Your task to perform on an android device: Empty the shopping cart on ebay.com. Add lenovo thinkpad to the cart on ebay.com, then select checkout. Image 0: 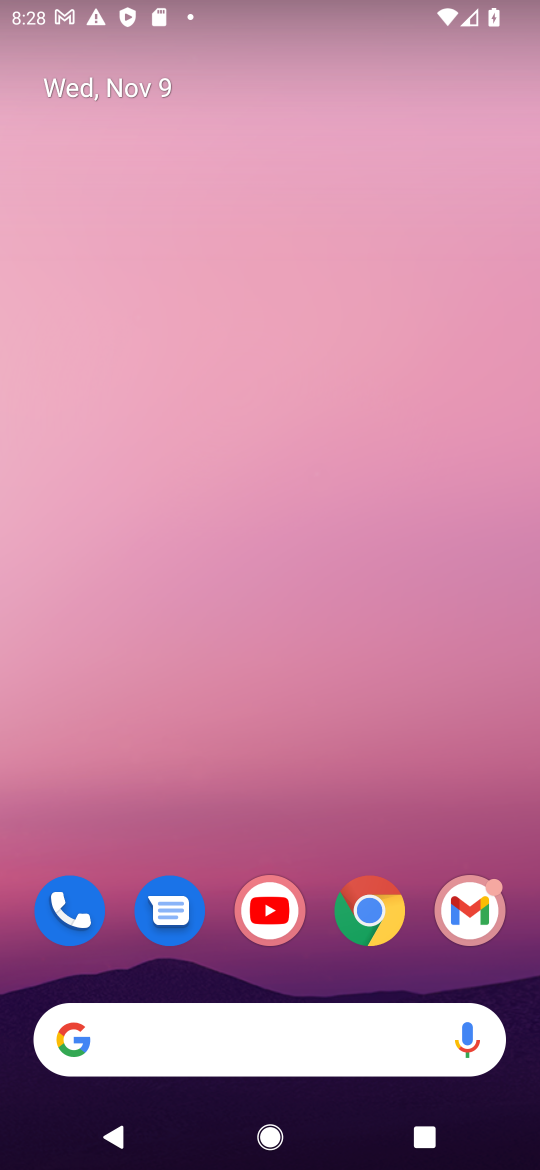
Step 0: click (378, 919)
Your task to perform on an android device: Empty the shopping cart on ebay.com. Add lenovo thinkpad to the cart on ebay.com, then select checkout. Image 1: 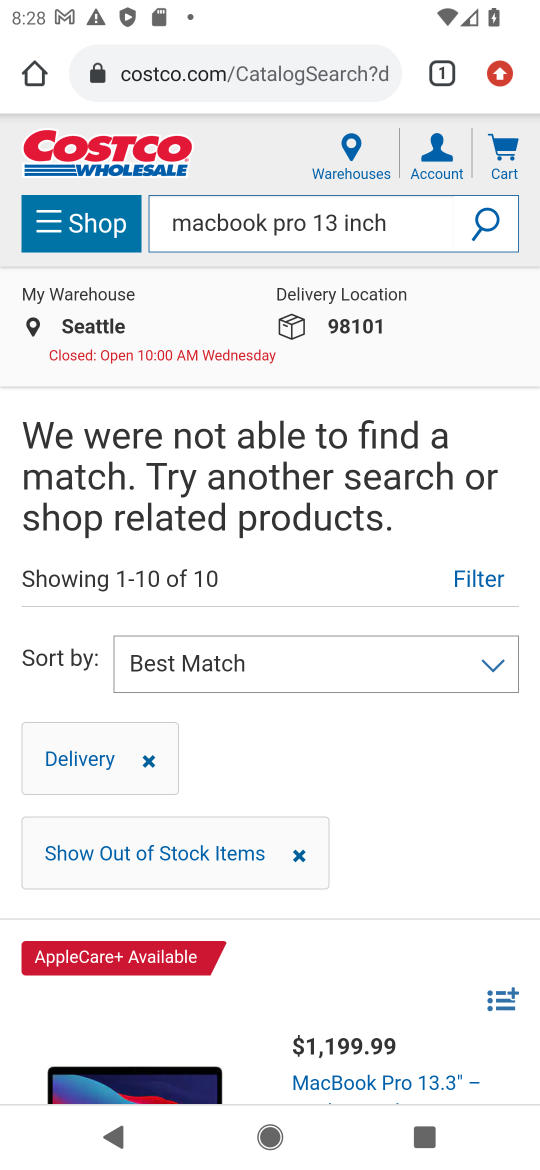
Step 1: click (256, 84)
Your task to perform on an android device: Empty the shopping cart on ebay.com. Add lenovo thinkpad to the cart on ebay.com, then select checkout. Image 2: 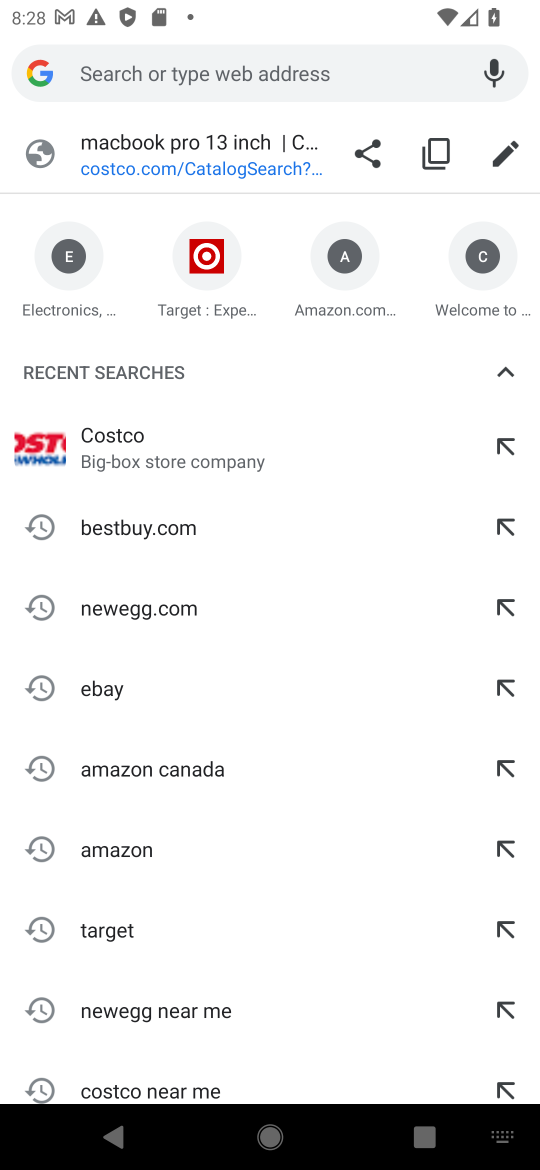
Step 2: click (108, 689)
Your task to perform on an android device: Empty the shopping cart on ebay.com. Add lenovo thinkpad to the cart on ebay.com, then select checkout. Image 3: 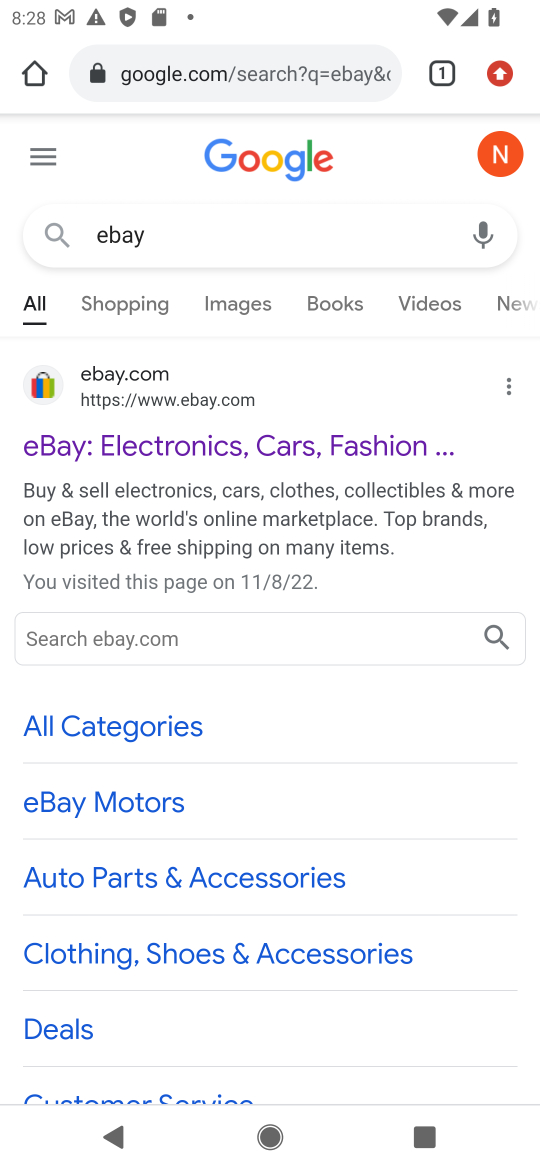
Step 3: click (92, 434)
Your task to perform on an android device: Empty the shopping cart on ebay.com. Add lenovo thinkpad to the cart on ebay.com, then select checkout. Image 4: 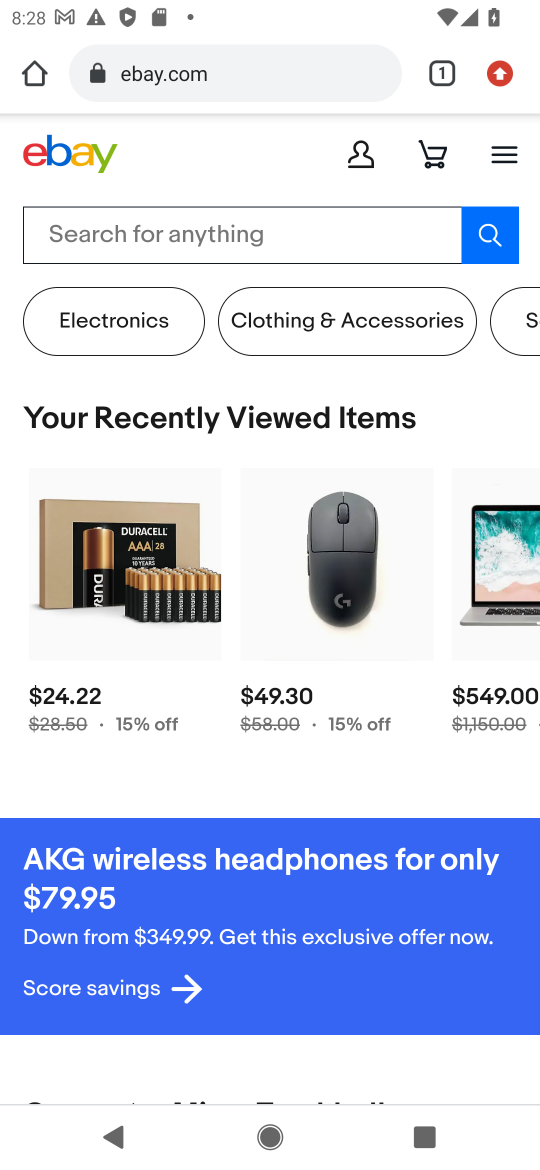
Step 4: click (427, 162)
Your task to perform on an android device: Empty the shopping cart on ebay.com. Add lenovo thinkpad to the cart on ebay.com, then select checkout. Image 5: 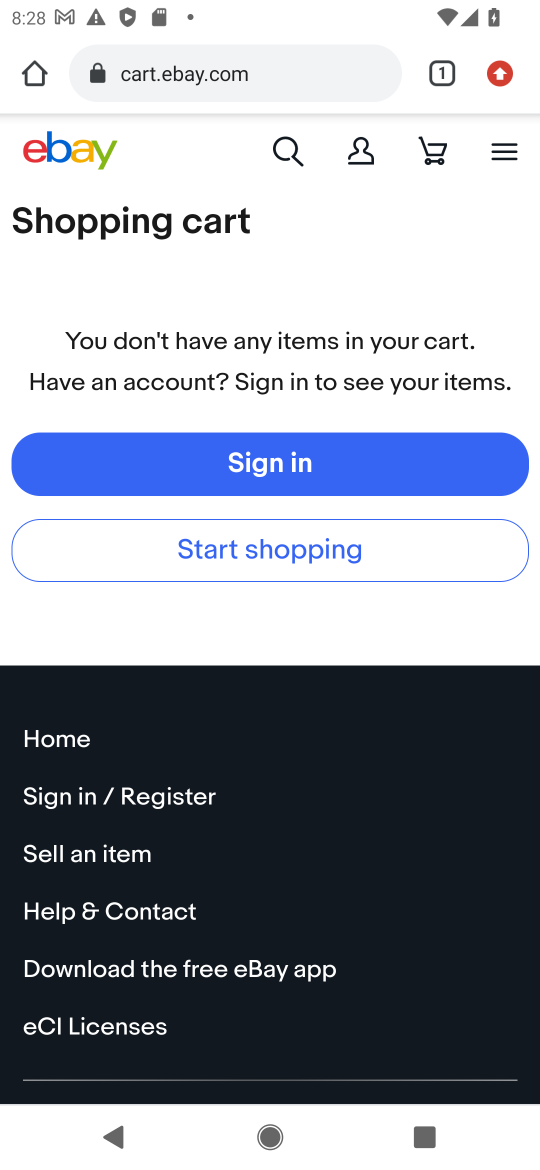
Step 5: click (279, 154)
Your task to perform on an android device: Empty the shopping cart on ebay.com. Add lenovo thinkpad to the cart on ebay.com, then select checkout. Image 6: 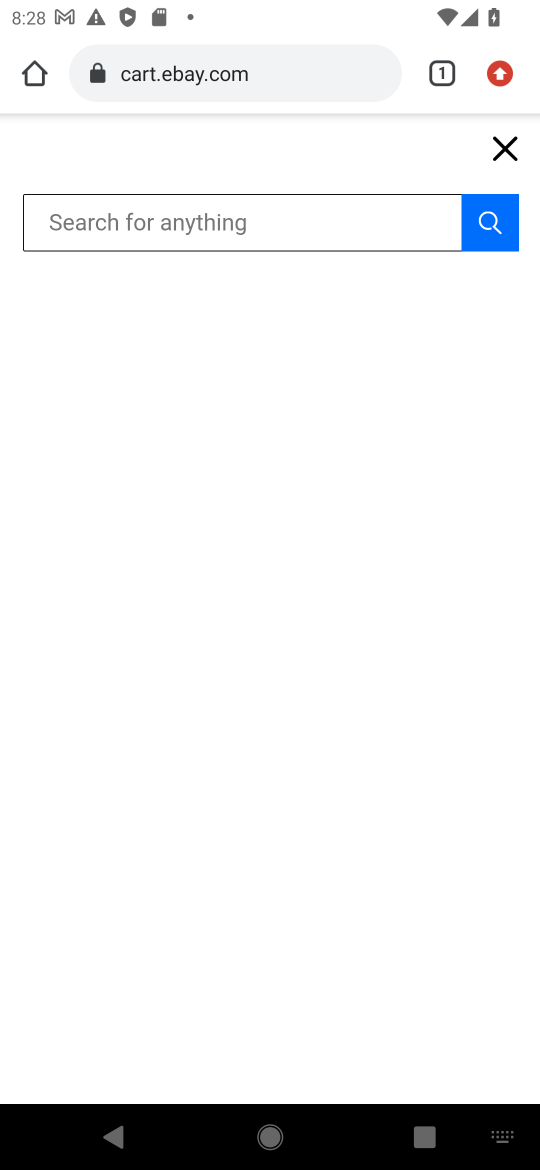
Step 6: type "lenovo thinkpad"
Your task to perform on an android device: Empty the shopping cart on ebay.com. Add lenovo thinkpad to the cart on ebay.com, then select checkout. Image 7: 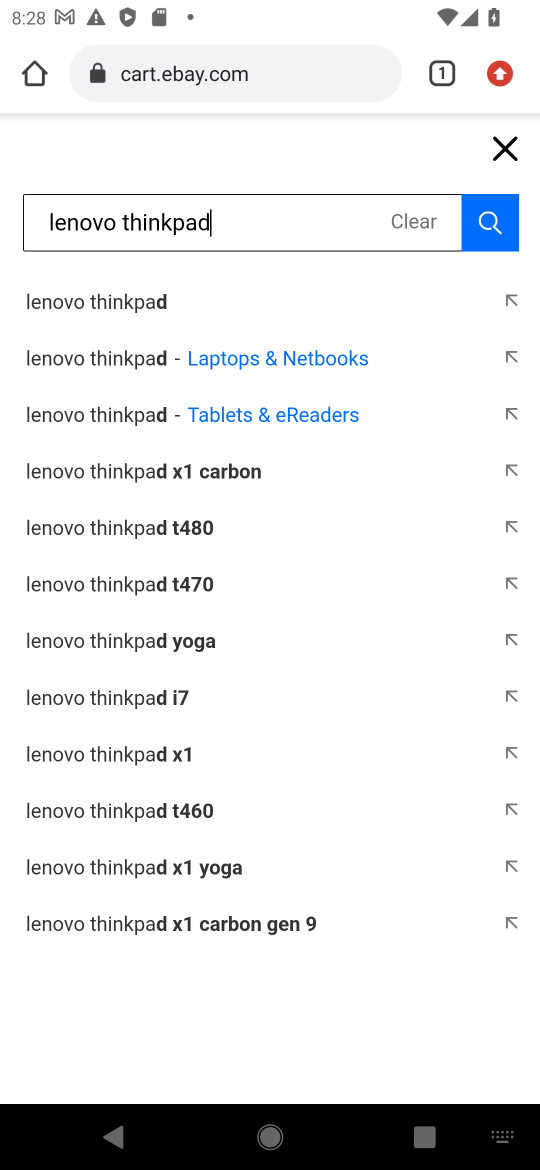
Step 7: click (111, 308)
Your task to perform on an android device: Empty the shopping cart on ebay.com. Add lenovo thinkpad to the cart on ebay.com, then select checkout. Image 8: 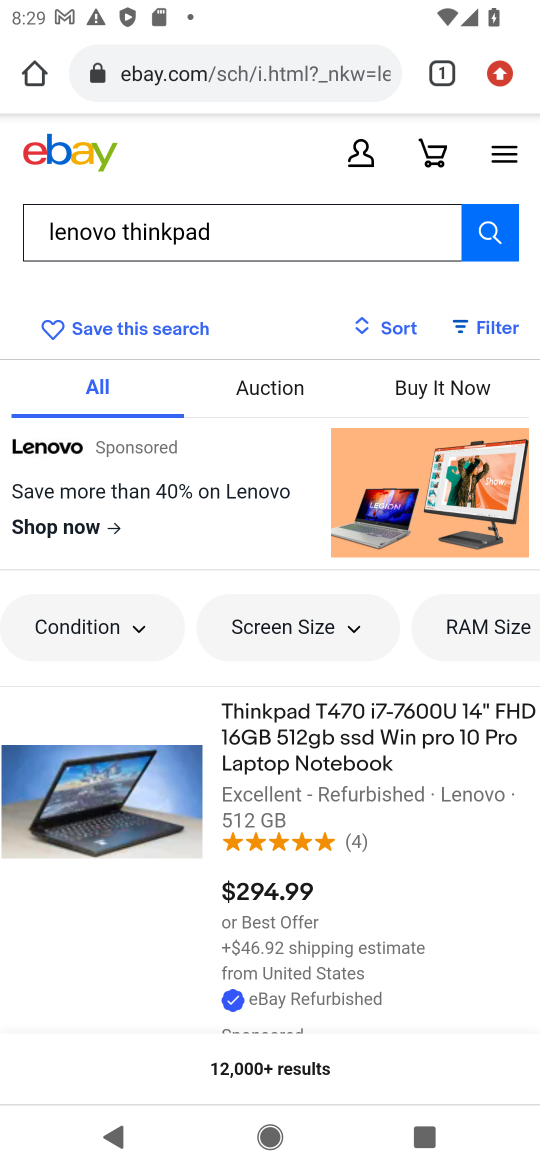
Step 8: drag from (178, 786) to (185, 404)
Your task to perform on an android device: Empty the shopping cart on ebay.com. Add lenovo thinkpad to the cart on ebay.com, then select checkout. Image 9: 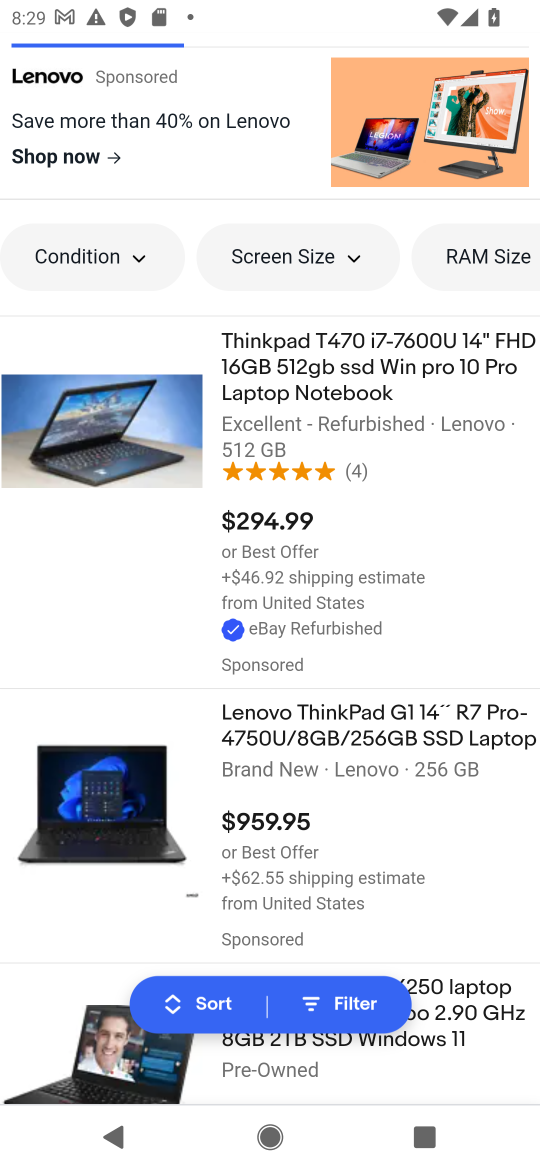
Step 9: drag from (192, 779) to (208, 480)
Your task to perform on an android device: Empty the shopping cart on ebay.com. Add lenovo thinkpad to the cart on ebay.com, then select checkout. Image 10: 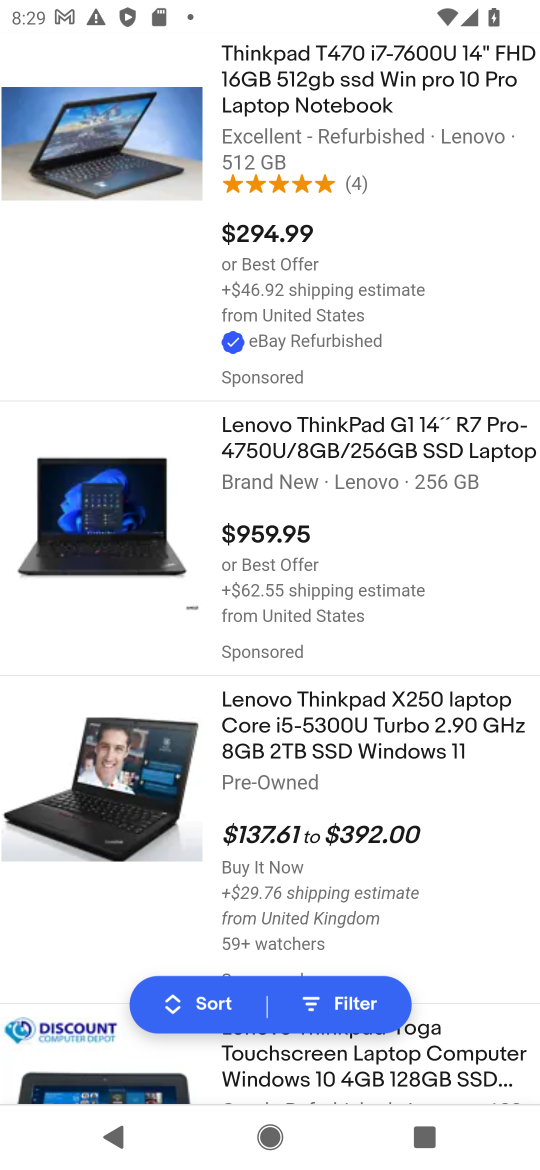
Step 10: click (148, 541)
Your task to perform on an android device: Empty the shopping cart on ebay.com. Add lenovo thinkpad to the cart on ebay.com, then select checkout. Image 11: 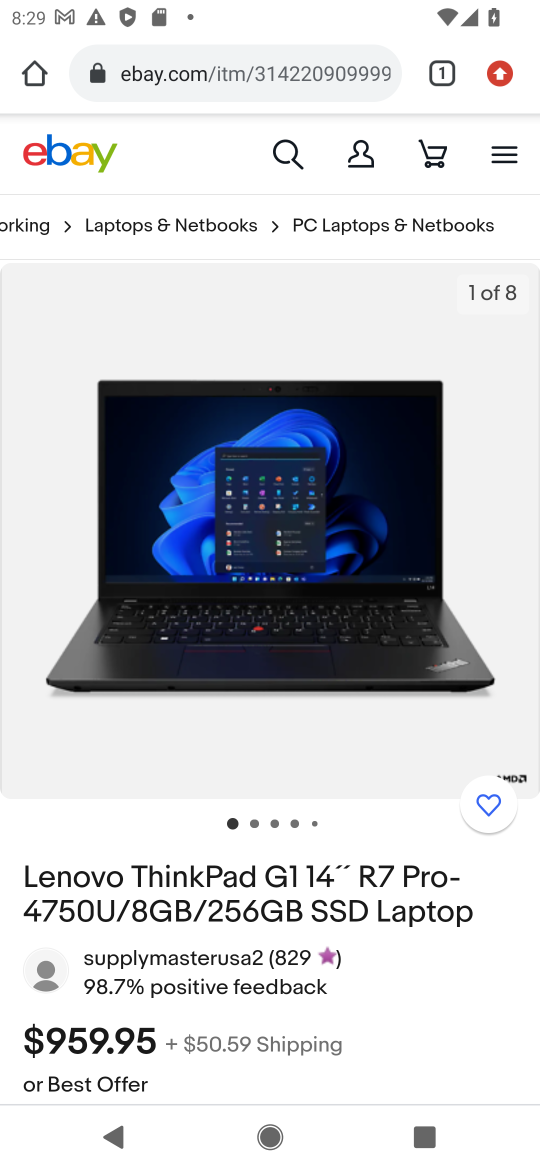
Step 11: drag from (167, 827) to (148, 323)
Your task to perform on an android device: Empty the shopping cart on ebay.com. Add lenovo thinkpad to the cart on ebay.com, then select checkout. Image 12: 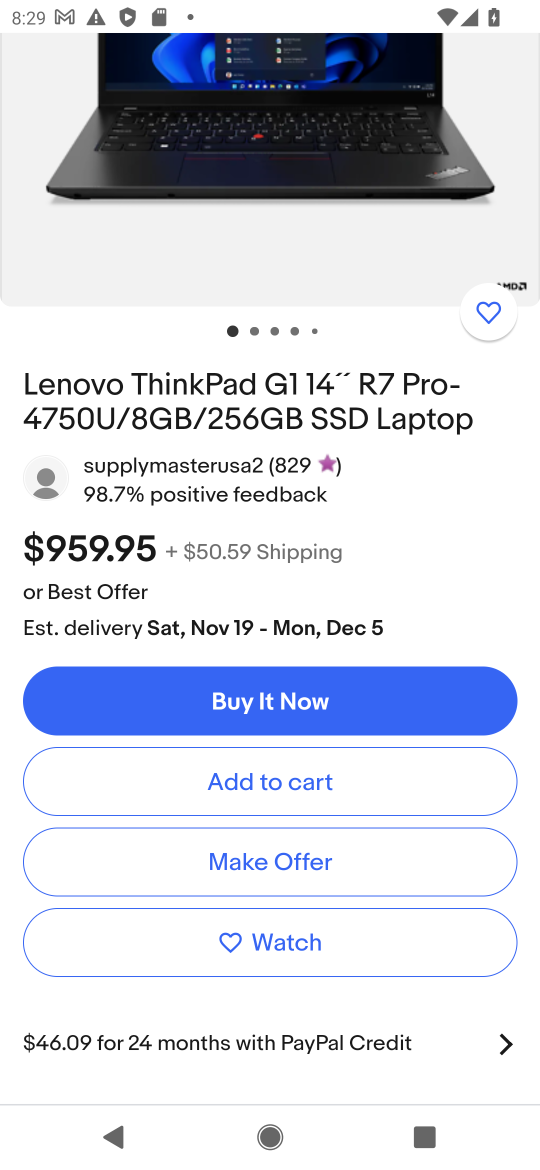
Step 12: click (225, 781)
Your task to perform on an android device: Empty the shopping cart on ebay.com. Add lenovo thinkpad to the cart on ebay.com, then select checkout. Image 13: 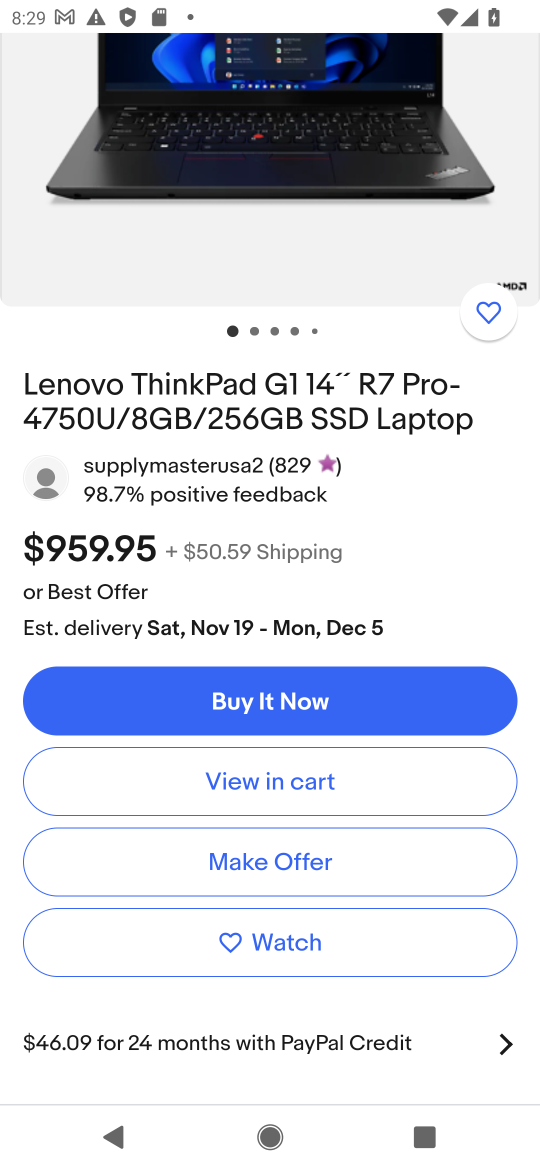
Step 13: click (225, 793)
Your task to perform on an android device: Empty the shopping cart on ebay.com. Add lenovo thinkpad to the cart on ebay.com, then select checkout. Image 14: 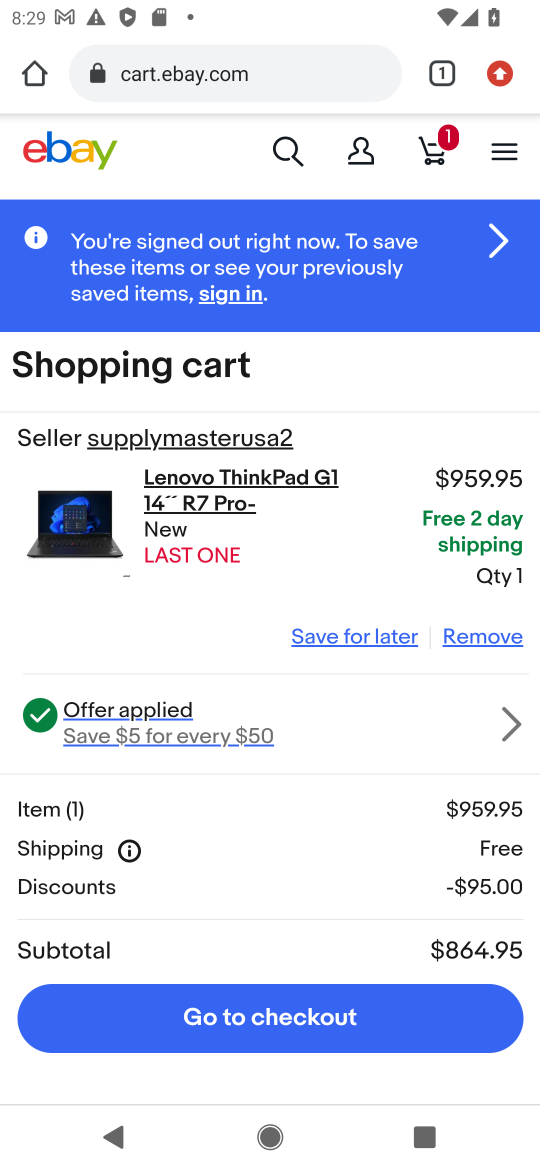
Step 14: click (293, 1026)
Your task to perform on an android device: Empty the shopping cart on ebay.com. Add lenovo thinkpad to the cart on ebay.com, then select checkout. Image 15: 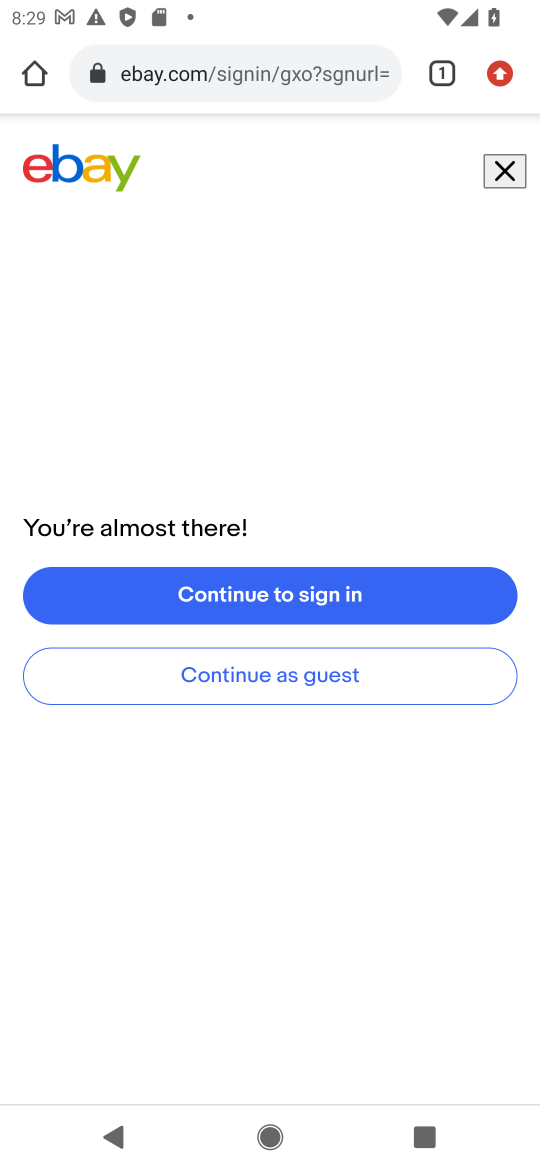
Step 15: task complete